Your task to perform on an android device: Open the web browser Image 0: 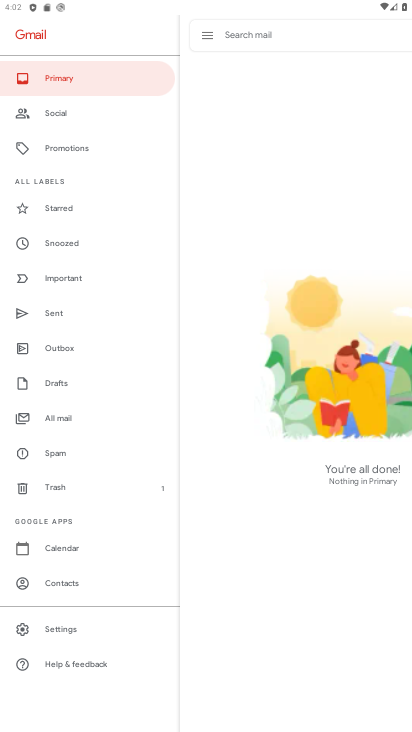
Step 0: press home button
Your task to perform on an android device: Open the web browser Image 1: 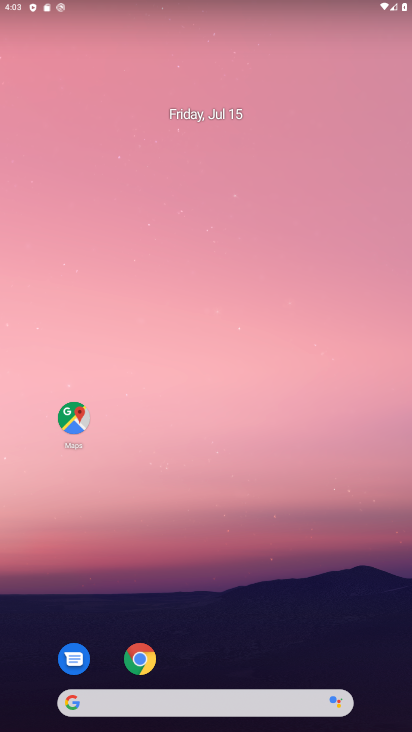
Step 1: drag from (184, 716) to (190, 105)
Your task to perform on an android device: Open the web browser Image 2: 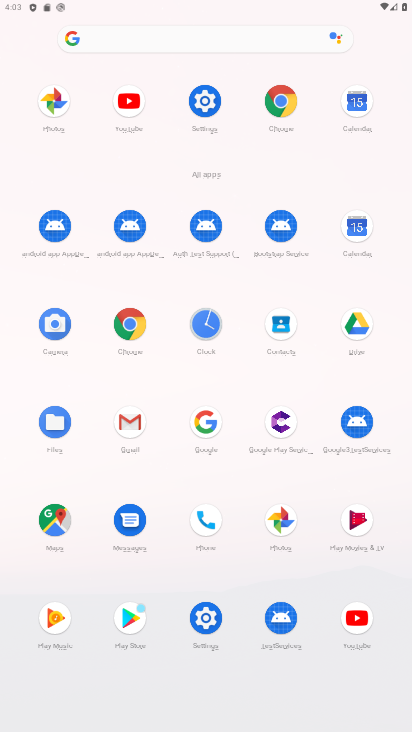
Step 2: click (131, 322)
Your task to perform on an android device: Open the web browser Image 3: 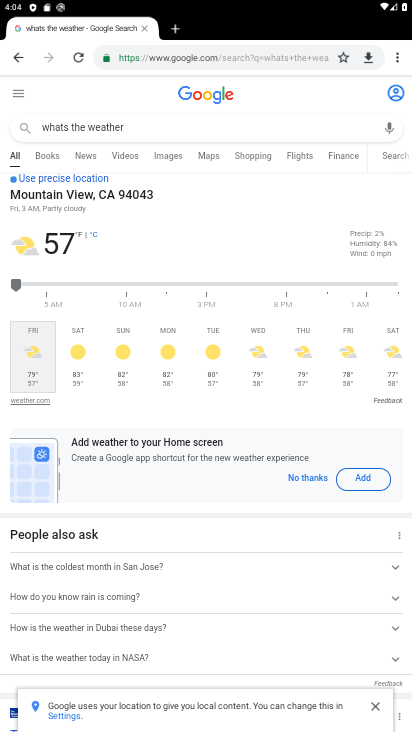
Step 3: task complete